Your task to perform on an android device: turn off data saver in the chrome app Image 0: 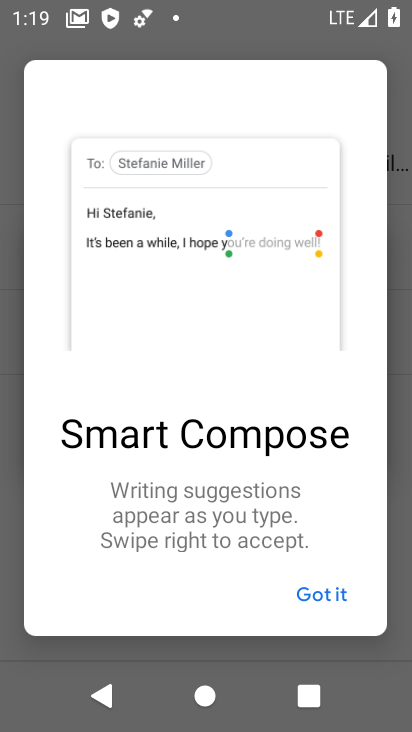
Step 0: press home button
Your task to perform on an android device: turn off data saver in the chrome app Image 1: 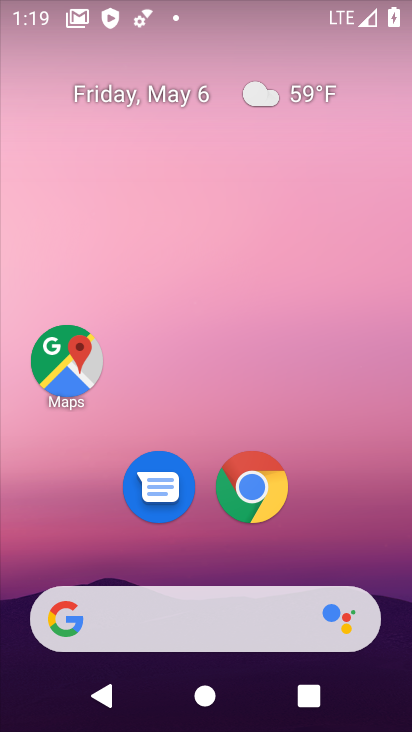
Step 1: drag from (237, 614) to (156, 246)
Your task to perform on an android device: turn off data saver in the chrome app Image 2: 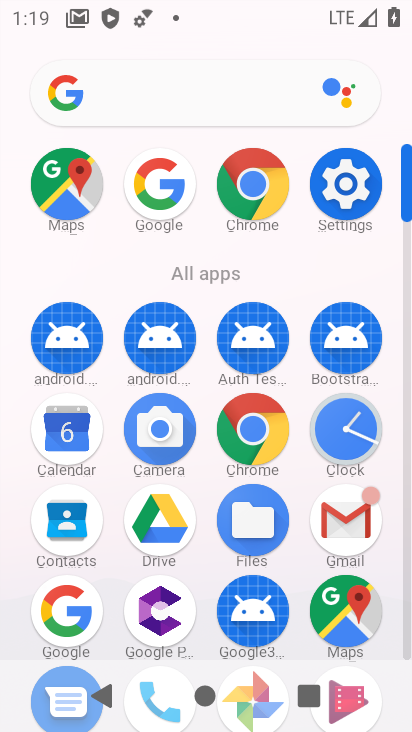
Step 2: click (258, 226)
Your task to perform on an android device: turn off data saver in the chrome app Image 3: 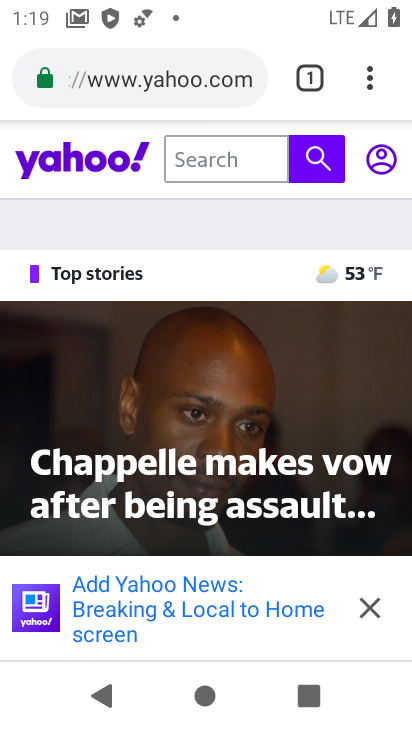
Step 3: click (376, 83)
Your task to perform on an android device: turn off data saver in the chrome app Image 4: 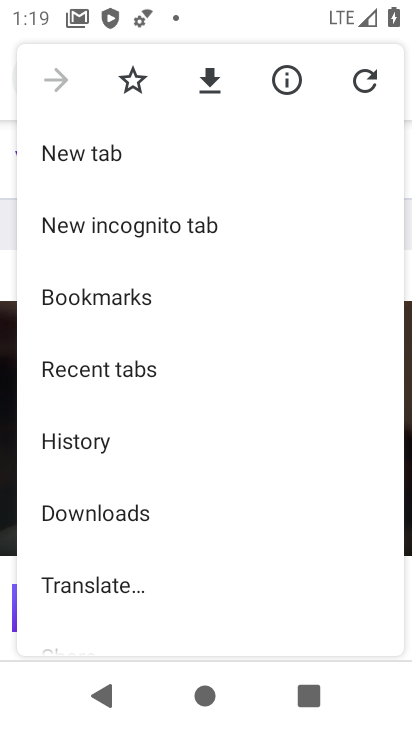
Step 4: drag from (249, 423) to (216, 90)
Your task to perform on an android device: turn off data saver in the chrome app Image 5: 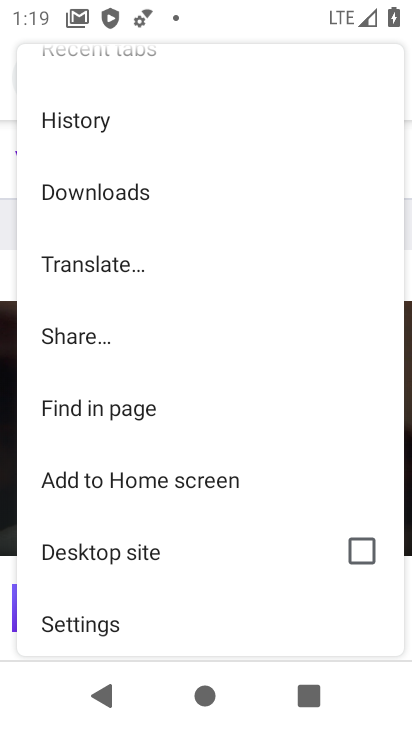
Step 5: drag from (182, 495) to (146, 10)
Your task to perform on an android device: turn off data saver in the chrome app Image 6: 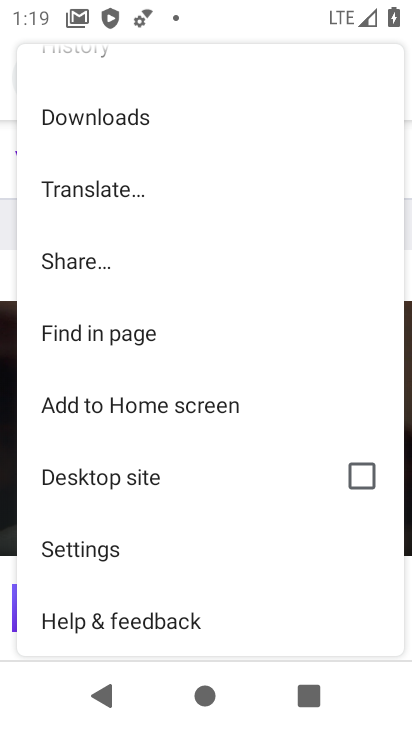
Step 6: click (150, 549)
Your task to perform on an android device: turn off data saver in the chrome app Image 7: 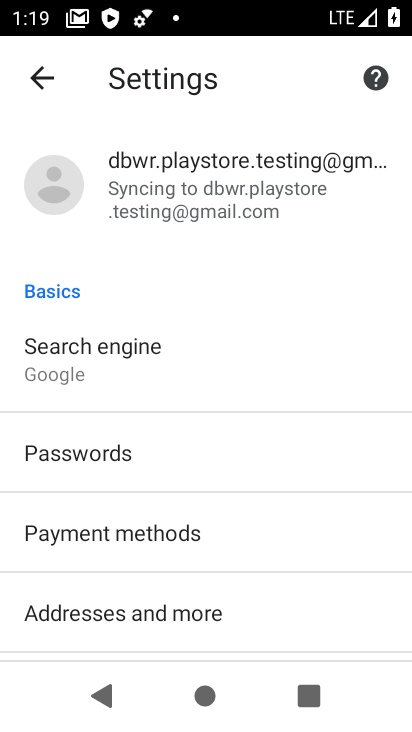
Step 7: drag from (162, 594) to (150, 287)
Your task to perform on an android device: turn off data saver in the chrome app Image 8: 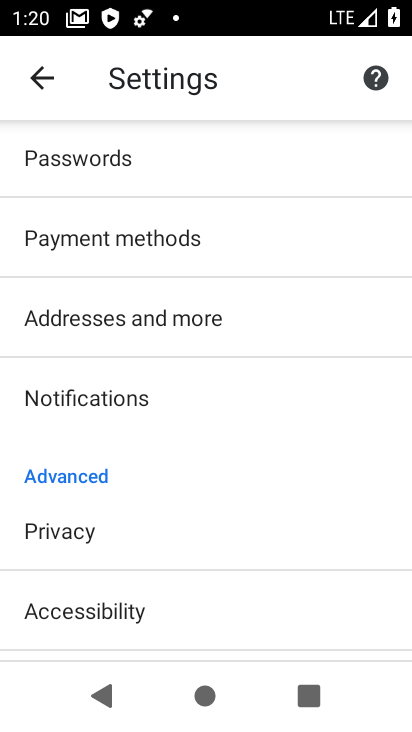
Step 8: drag from (154, 491) to (162, 158)
Your task to perform on an android device: turn off data saver in the chrome app Image 9: 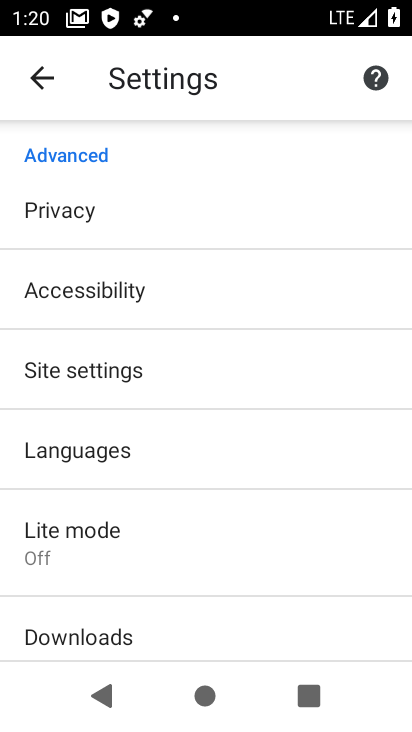
Step 9: drag from (121, 475) to (144, 105)
Your task to perform on an android device: turn off data saver in the chrome app Image 10: 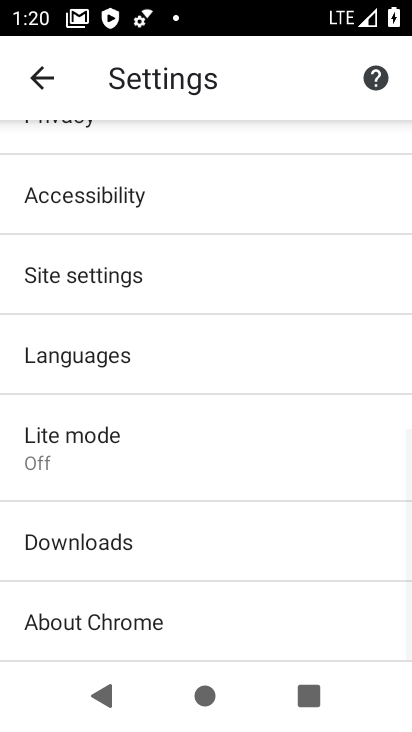
Step 10: drag from (123, 621) to (136, 427)
Your task to perform on an android device: turn off data saver in the chrome app Image 11: 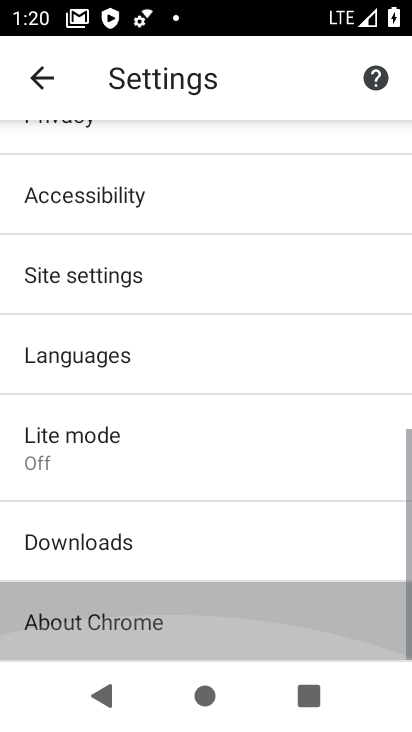
Step 11: click (136, 427)
Your task to perform on an android device: turn off data saver in the chrome app Image 12: 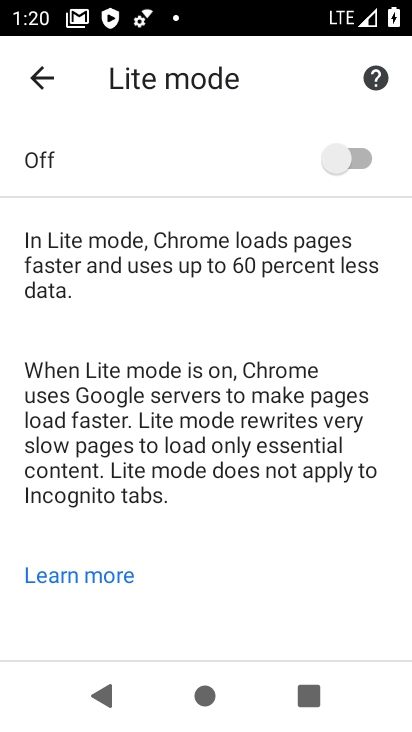
Step 12: task complete